Your task to perform on an android device: What's the weather today? Image 0: 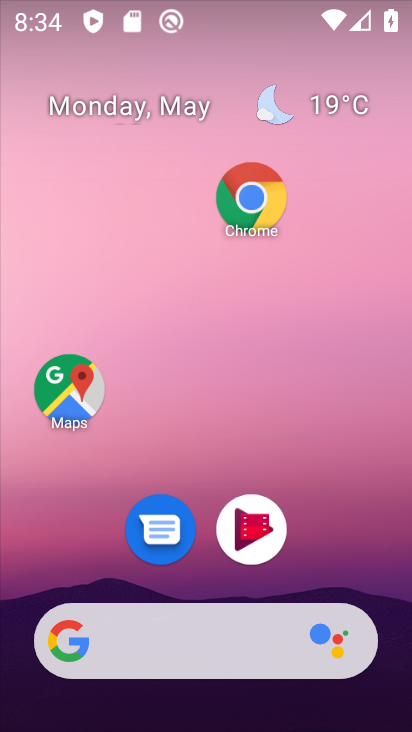
Step 0: click (120, 653)
Your task to perform on an android device: What's the weather today? Image 1: 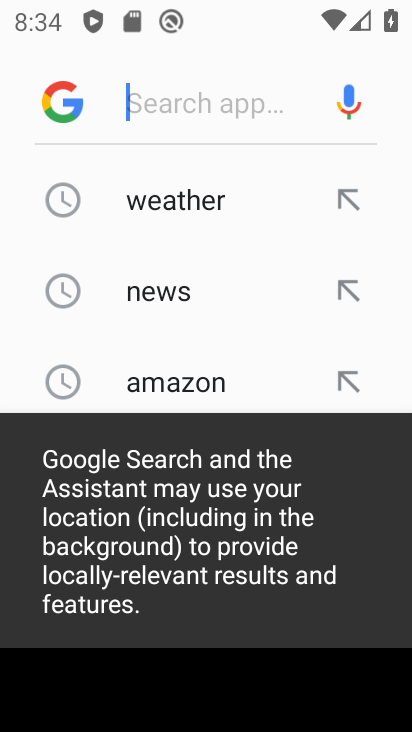
Step 1: click (190, 204)
Your task to perform on an android device: What's the weather today? Image 2: 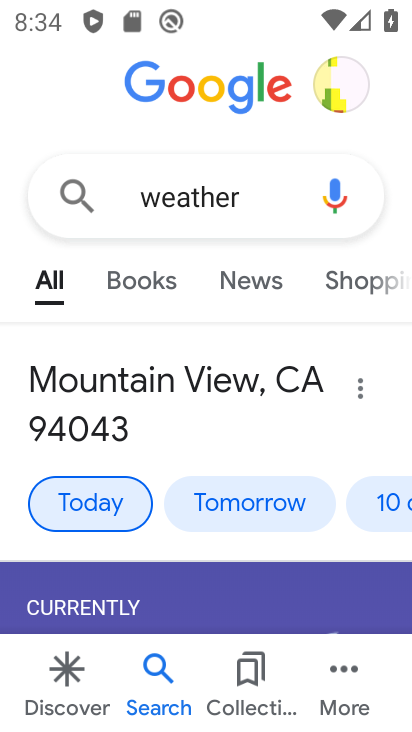
Step 2: task complete